Your task to perform on an android device: find photos in the google photos app Image 0: 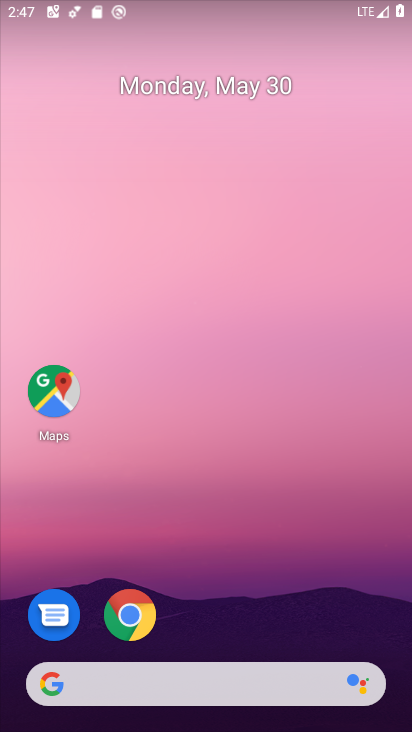
Step 0: drag from (244, 589) to (309, 20)
Your task to perform on an android device: find photos in the google photos app Image 1: 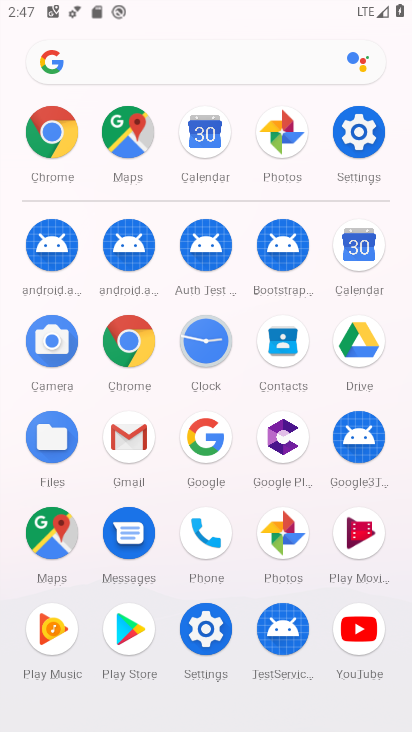
Step 1: click (284, 123)
Your task to perform on an android device: find photos in the google photos app Image 2: 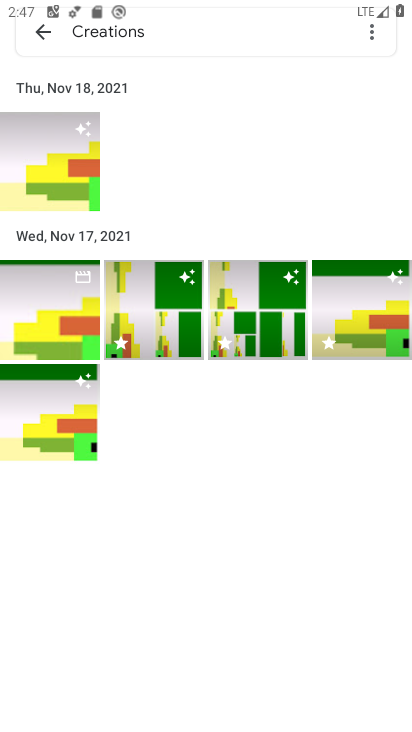
Step 2: click (39, 30)
Your task to perform on an android device: find photos in the google photos app Image 3: 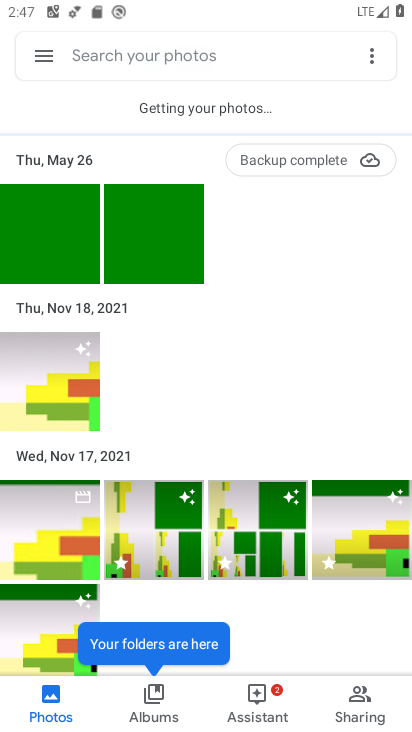
Step 3: task complete